Your task to perform on an android device: Show me recent news Image 0: 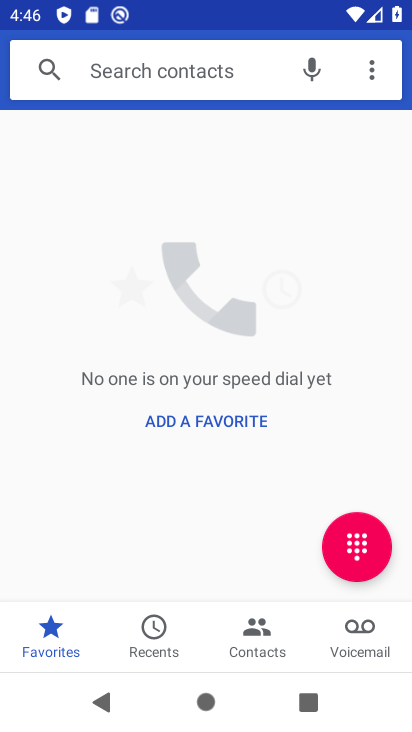
Step 0: press home button
Your task to perform on an android device: Show me recent news Image 1: 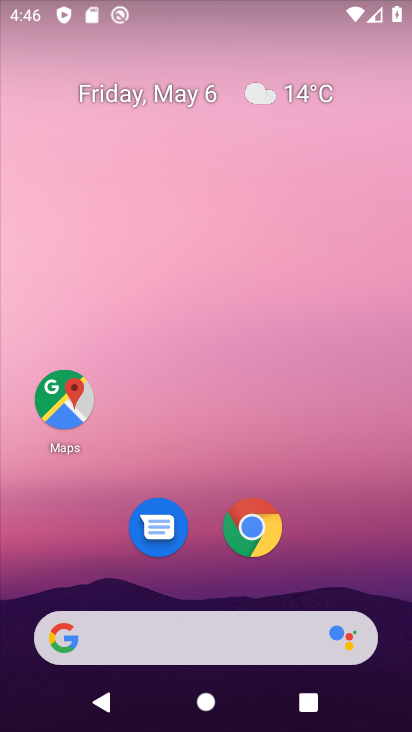
Step 1: drag from (335, 560) to (307, 151)
Your task to perform on an android device: Show me recent news Image 2: 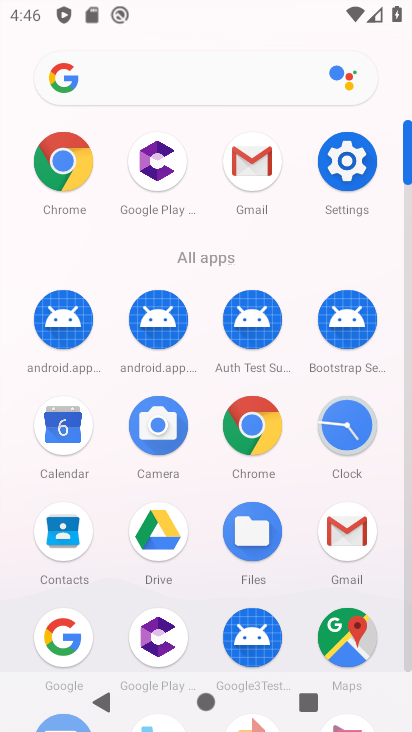
Step 2: click (35, 155)
Your task to perform on an android device: Show me recent news Image 3: 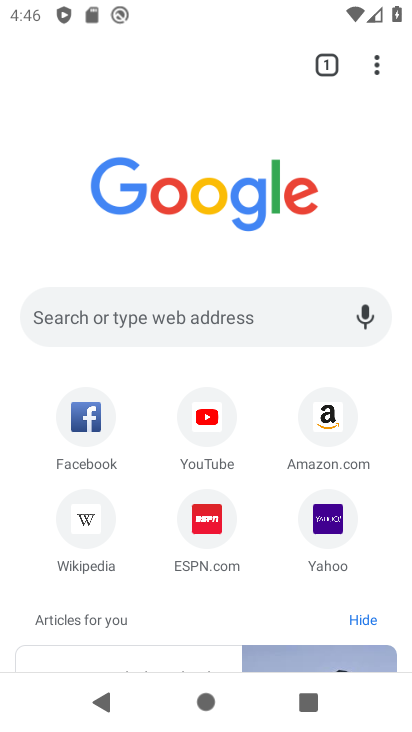
Step 3: task complete